Your task to perform on an android device: Open internet settings Image 0: 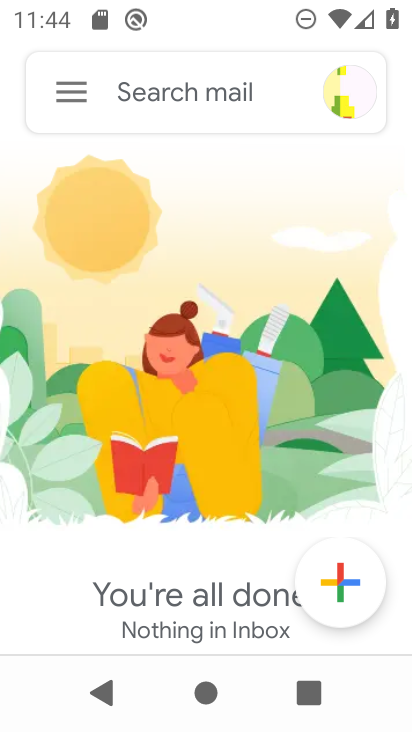
Step 0: press home button
Your task to perform on an android device: Open internet settings Image 1: 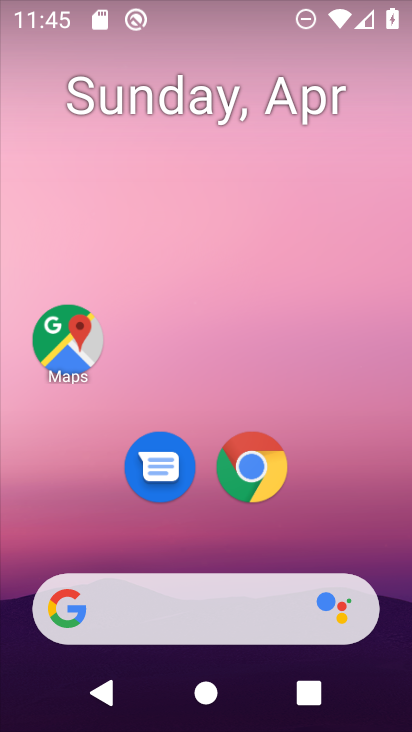
Step 1: drag from (368, 308) to (383, 62)
Your task to perform on an android device: Open internet settings Image 2: 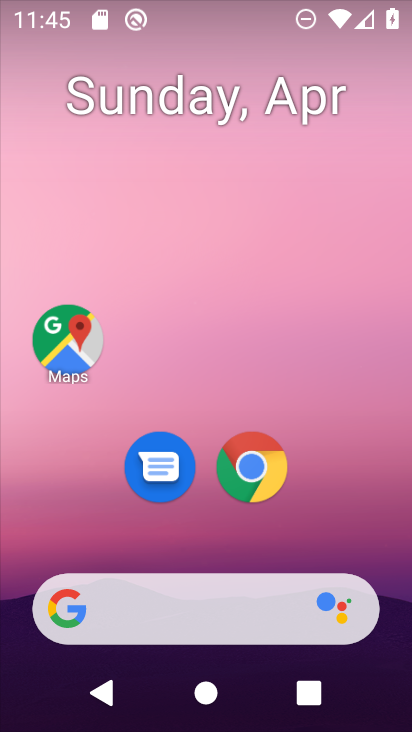
Step 2: drag from (361, 444) to (360, 41)
Your task to perform on an android device: Open internet settings Image 3: 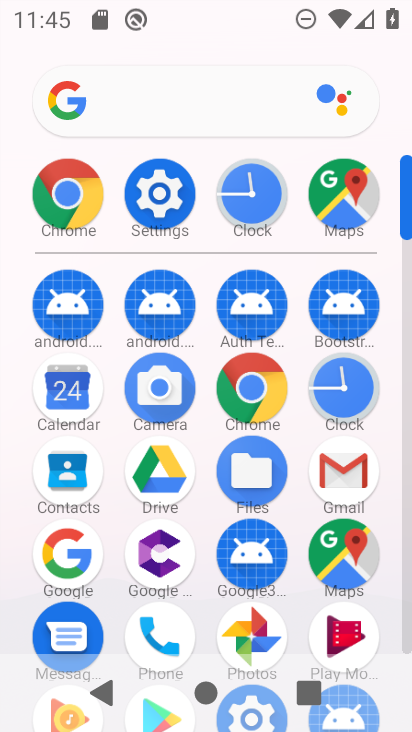
Step 3: click (178, 183)
Your task to perform on an android device: Open internet settings Image 4: 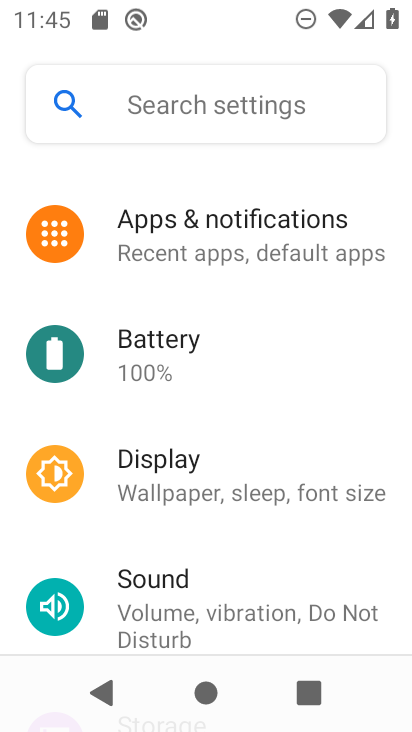
Step 4: drag from (357, 317) to (352, 450)
Your task to perform on an android device: Open internet settings Image 5: 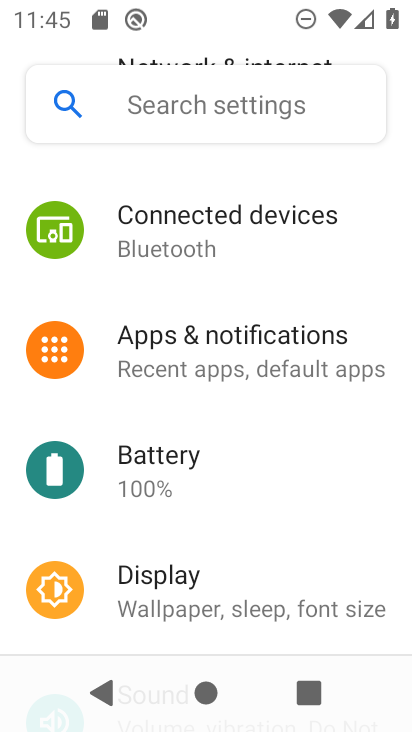
Step 5: drag from (365, 207) to (367, 465)
Your task to perform on an android device: Open internet settings Image 6: 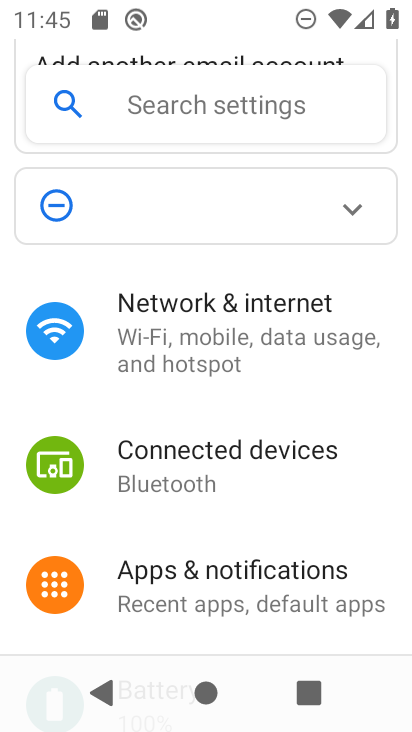
Step 6: click (307, 328)
Your task to perform on an android device: Open internet settings Image 7: 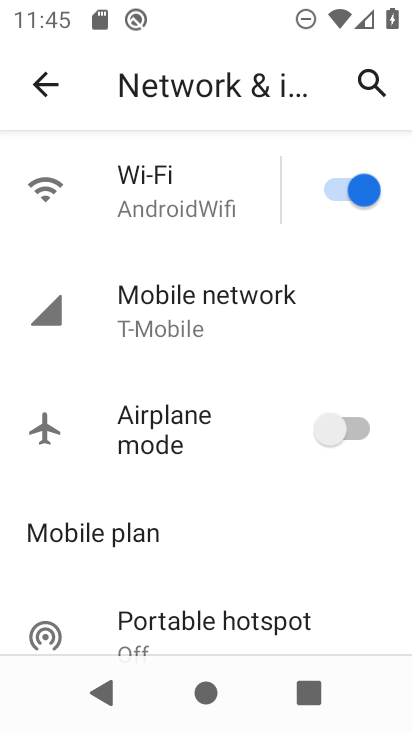
Step 7: task complete